Your task to perform on an android device: Open privacy settings Image 0: 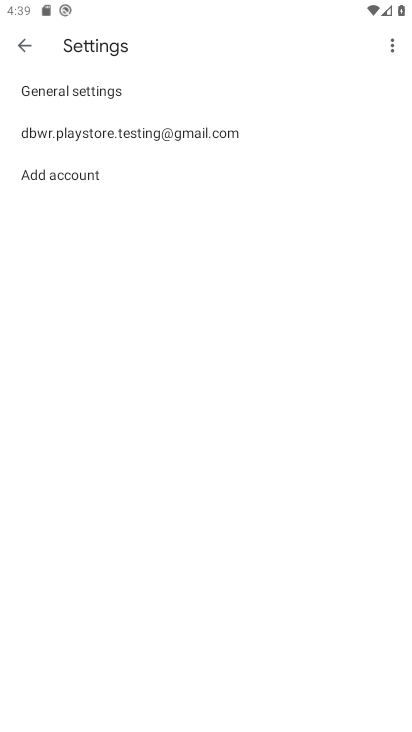
Step 0: press home button
Your task to perform on an android device: Open privacy settings Image 1: 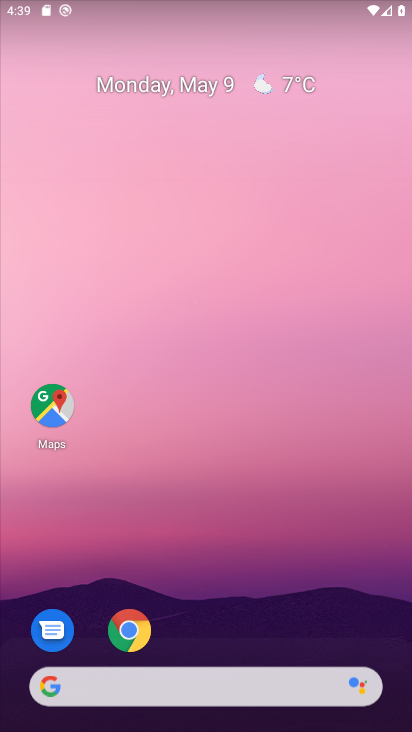
Step 1: click (144, 629)
Your task to perform on an android device: Open privacy settings Image 2: 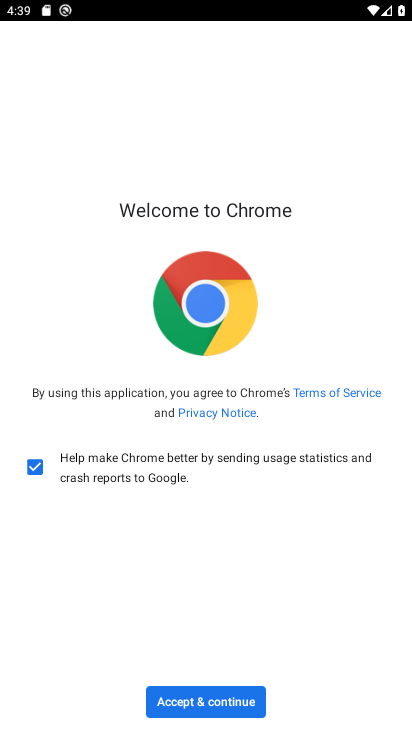
Step 2: click (202, 700)
Your task to perform on an android device: Open privacy settings Image 3: 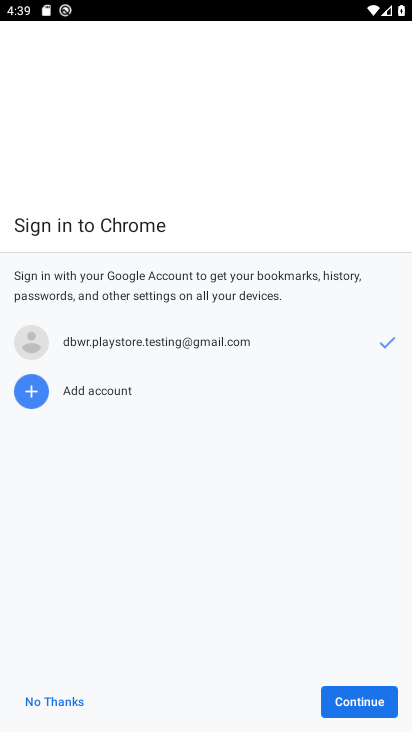
Step 3: click (373, 707)
Your task to perform on an android device: Open privacy settings Image 4: 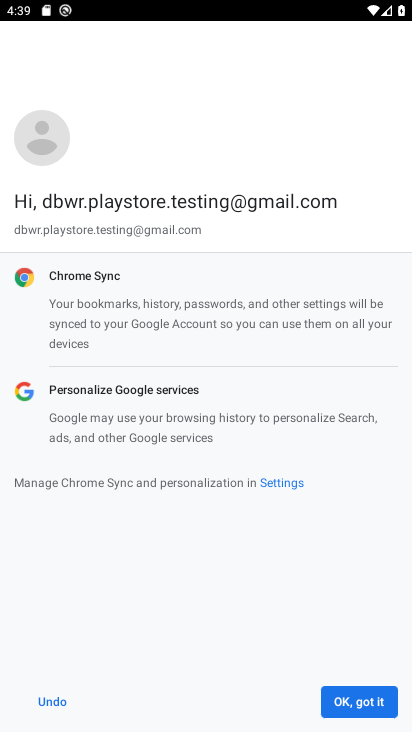
Step 4: click (373, 707)
Your task to perform on an android device: Open privacy settings Image 5: 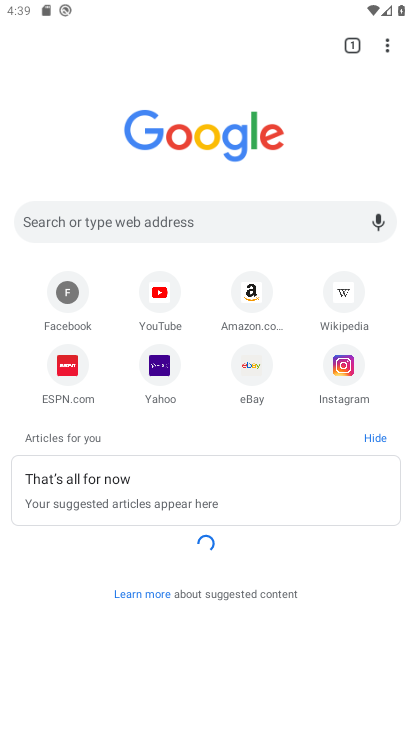
Step 5: drag from (394, 45) to (293, 373)
Your task to perform on an android device: Open privacy settings Image 6: 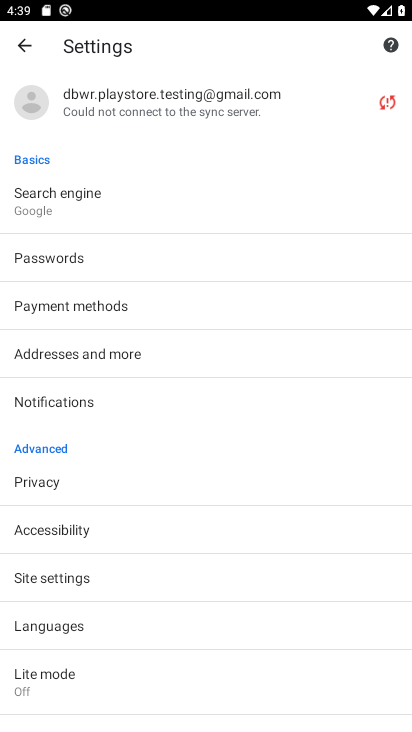
Step 6: click (175, 480)
Your task to perform on an android device: Open privacy settings Image 7: 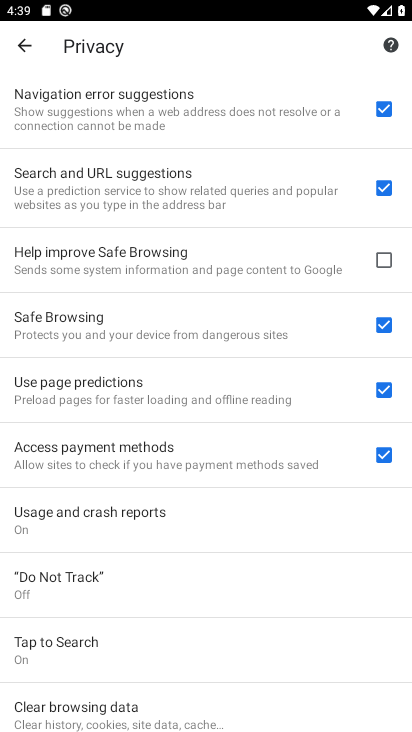
Step 7: task complete